Your task to perform on an android device: open a new tab in the chrome app Image 0: 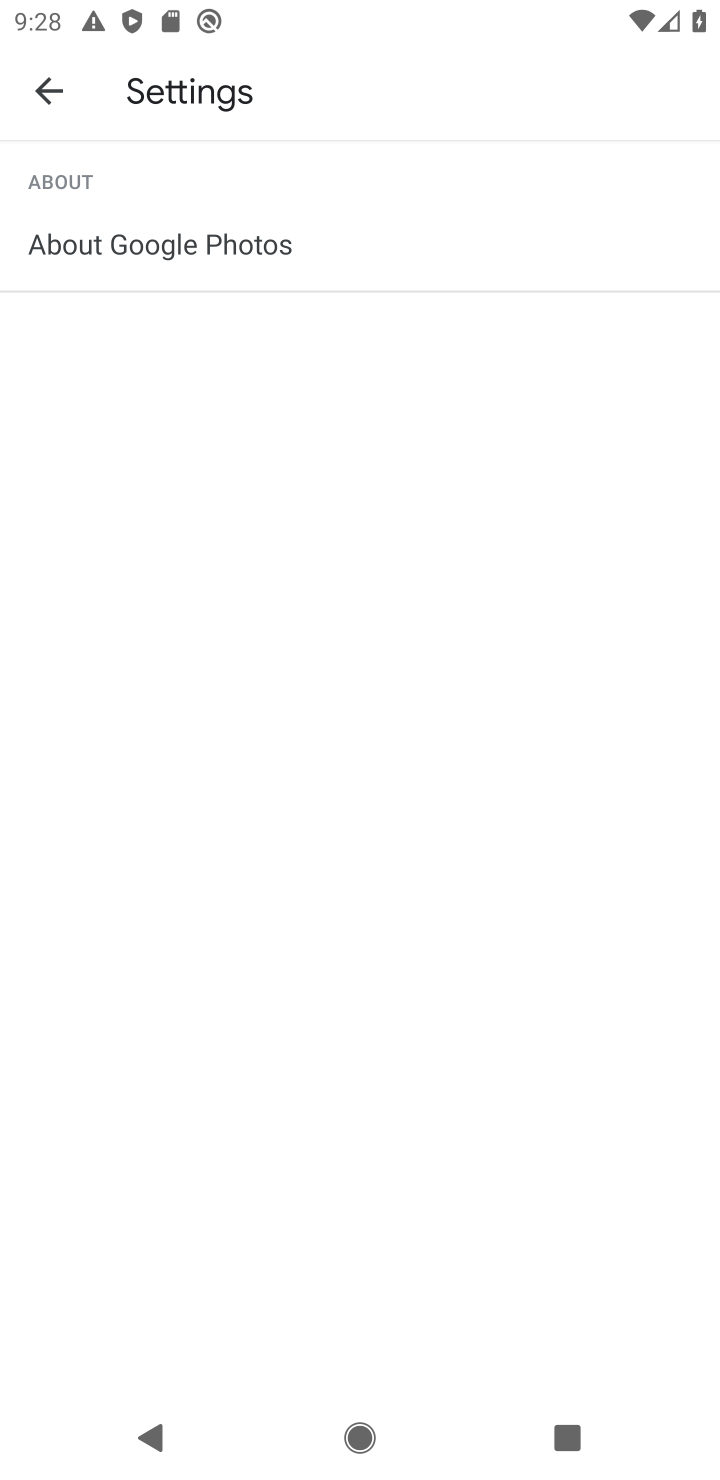
Step 0: press home button
Your task to perform on an android device: open a new tab in the chrome app Image 1: 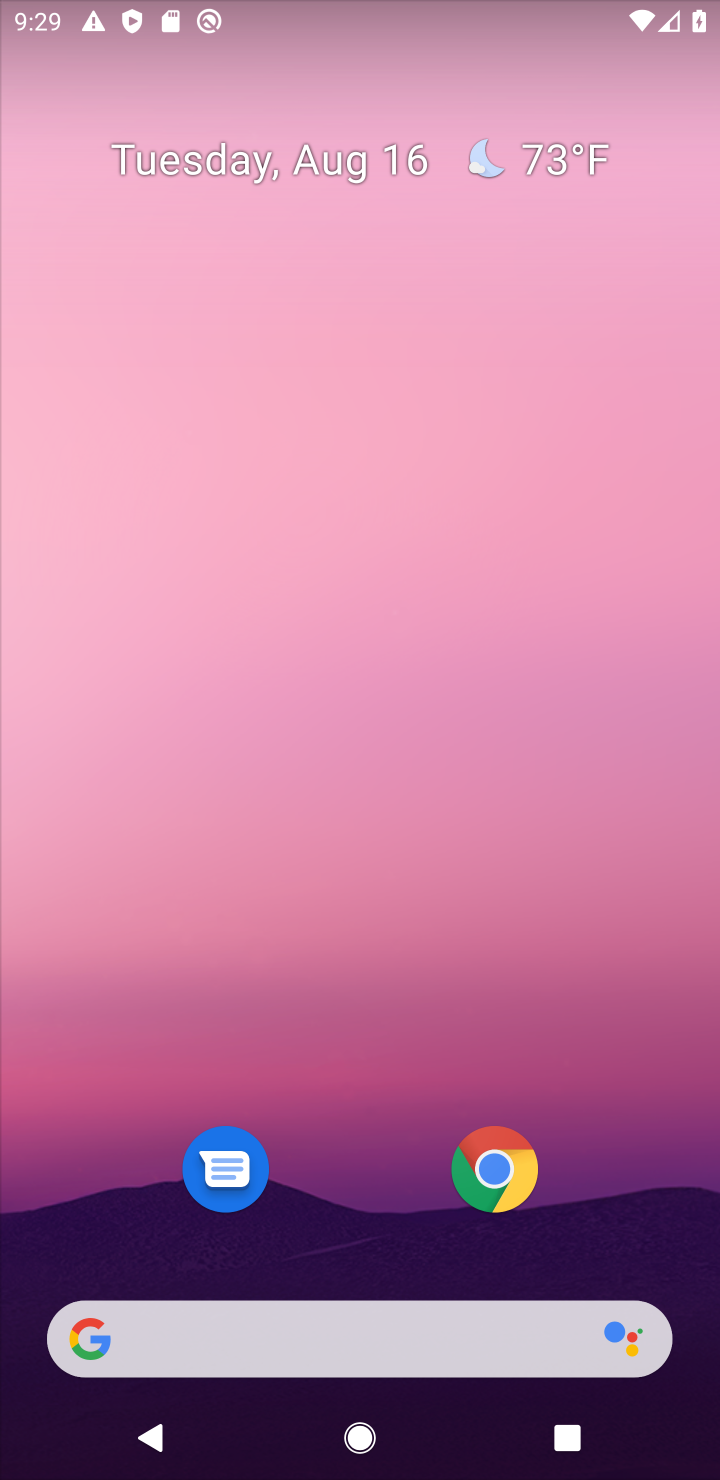
Step 1: click (502, 1176)
Your task to perform on an android device: open a new tab in the chrome app Image 2: 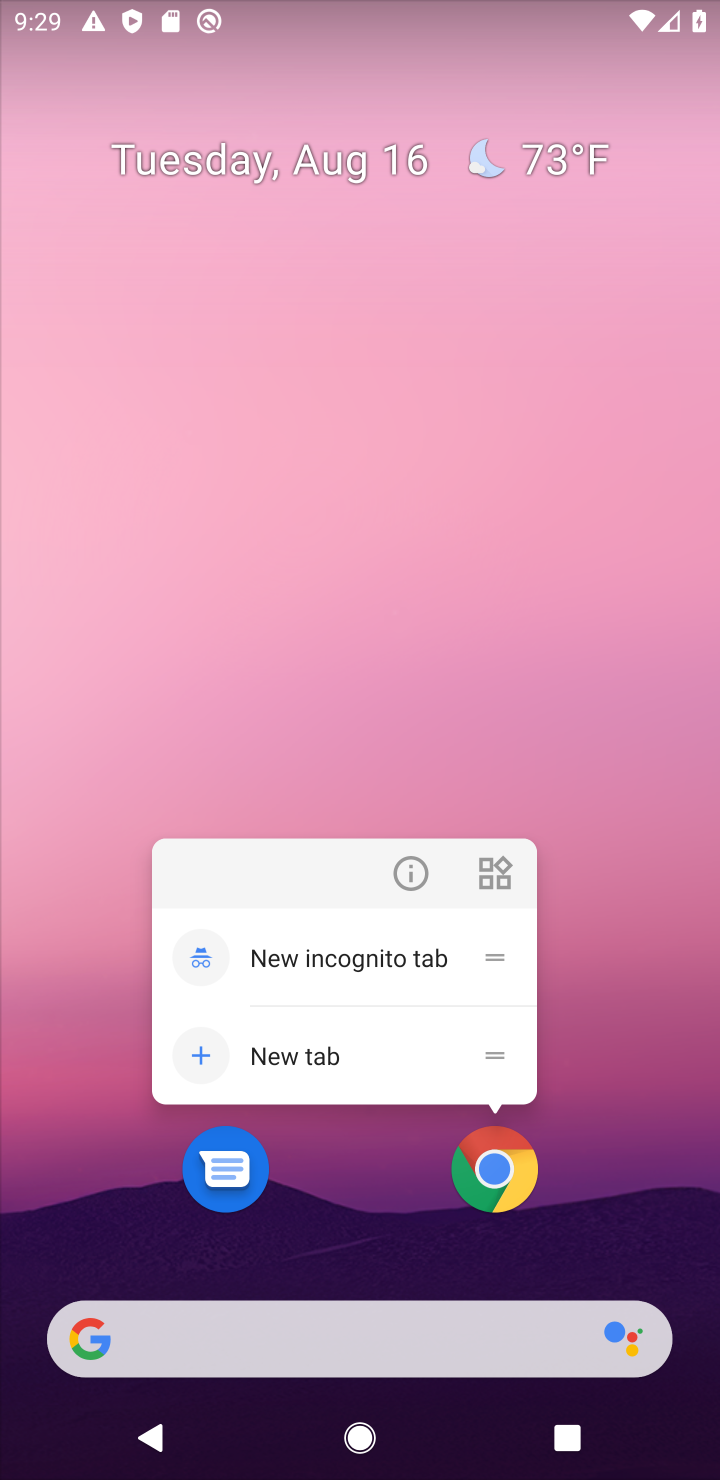
Step 2: click (489, 1176)
Your task to perform on an android device: open a new tab in the chrome app Image 3: 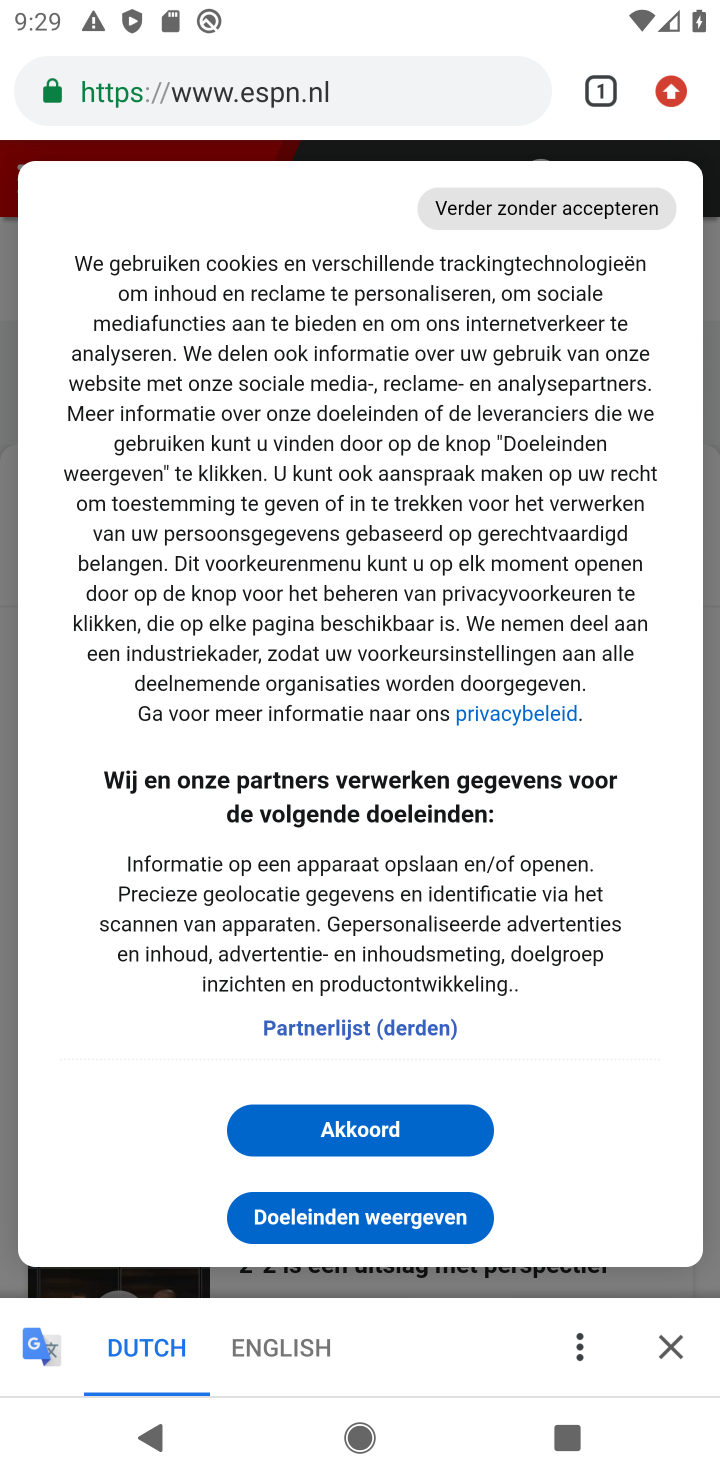
Step 3: click (594, 81)
Your task to perform on an android device: open a new tab in the chrome app Image 4: 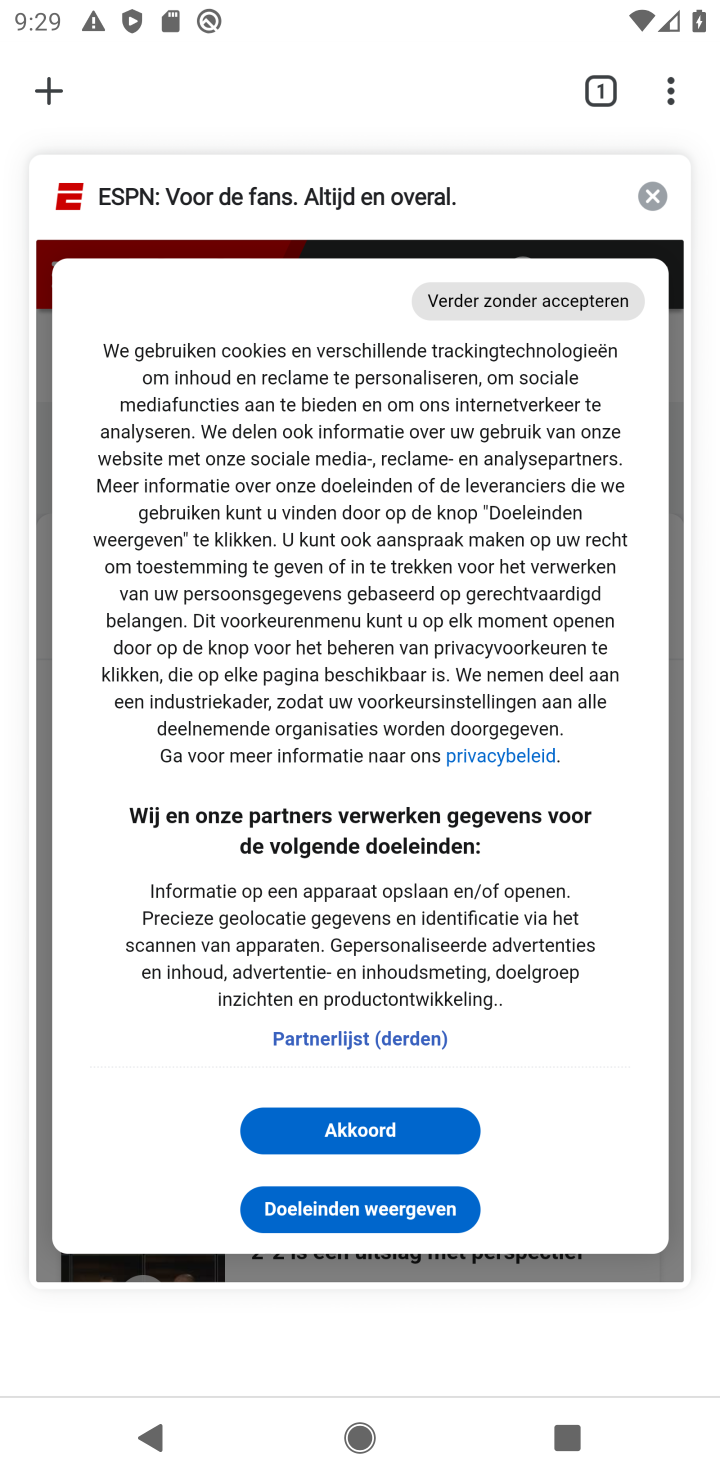
Step 4: click (59, 86)
Your task to perform on an android device: open a new tab in the chrome app Image 5: 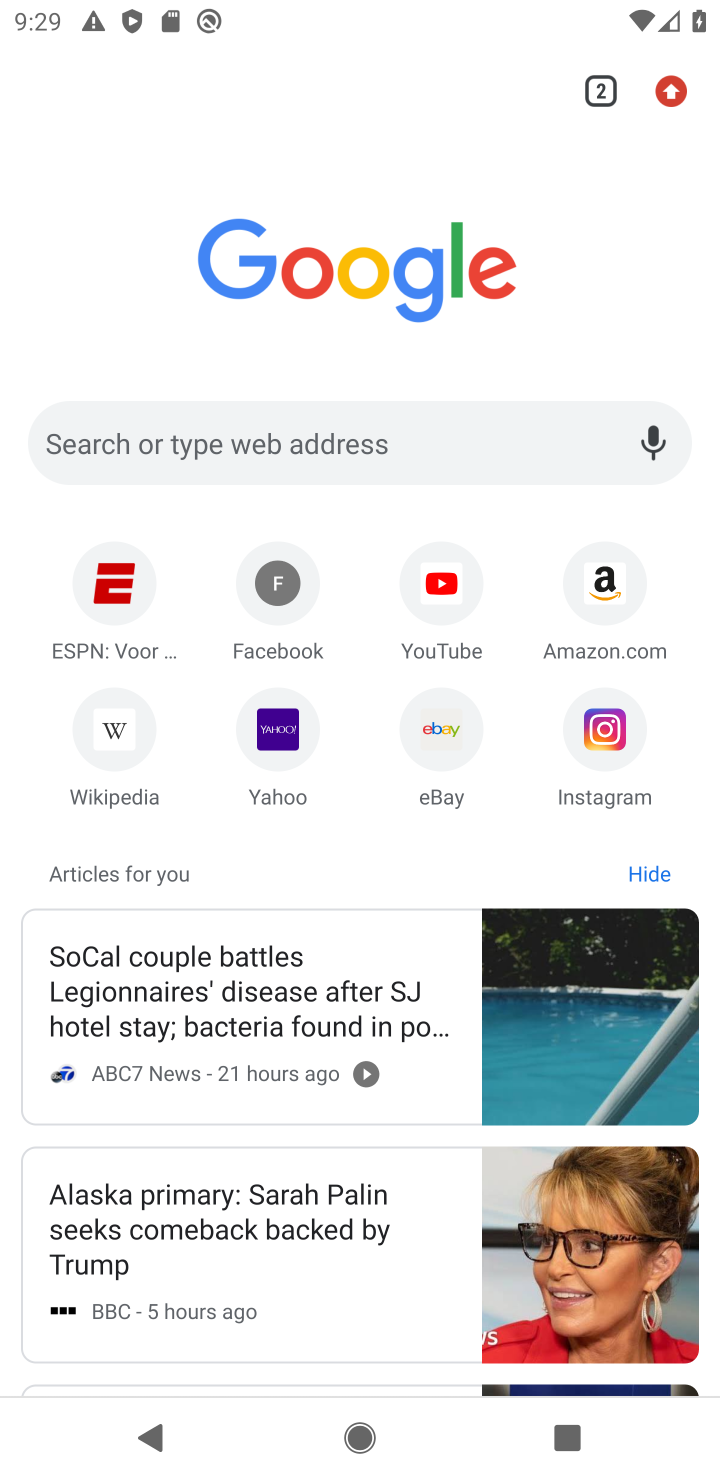
Step 5: task complete